Your task to perform on an android device: Open the phone app and click the voicemail tab. Image 0: 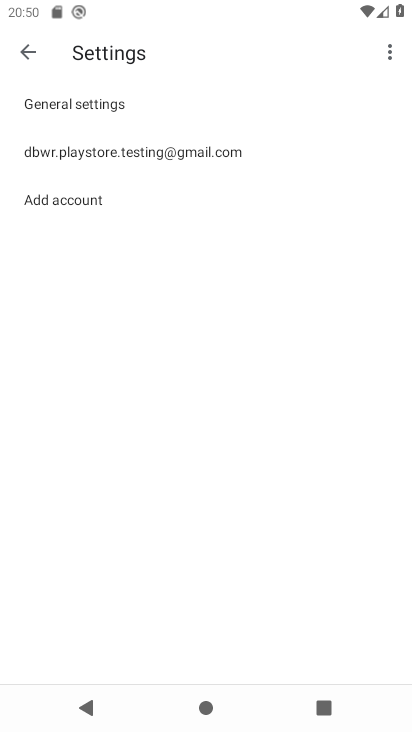
Step 0: press home button
Your task to perform on an android device: Open the phone app and click the voicemail tab. Image 1: 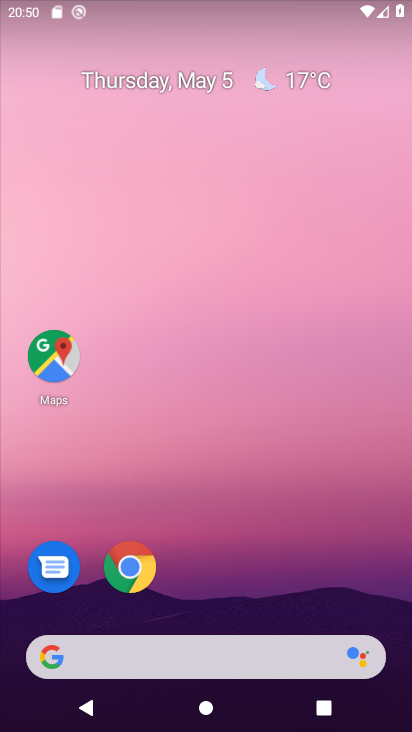
Step 1: drag from (274, 529) to (236, 40)
Your task to perform on an android device: Open the phone app and click the voicemail tab. Image 2: 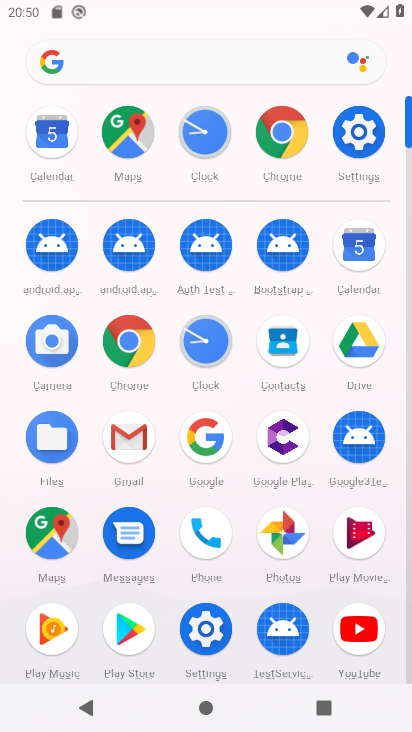
Step 2: click (203, 529)
Your task to perform on an android device: Open the phone app and click the voicemail tab. Image 3: 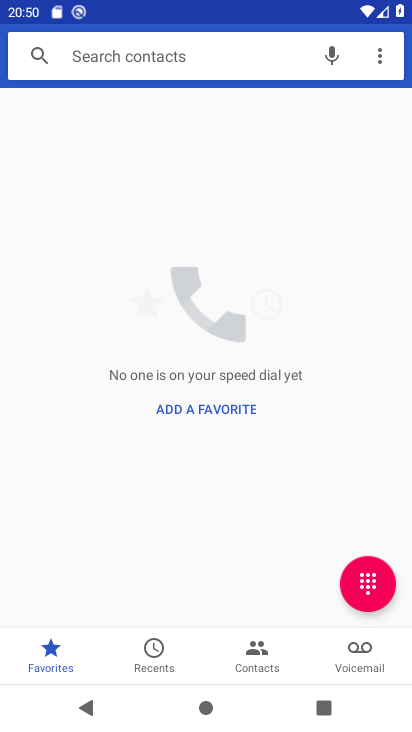
Step 3: click (360, 656)
Your task to perform on an android device: Open the phone app and click the voicemail tab. Image 4: 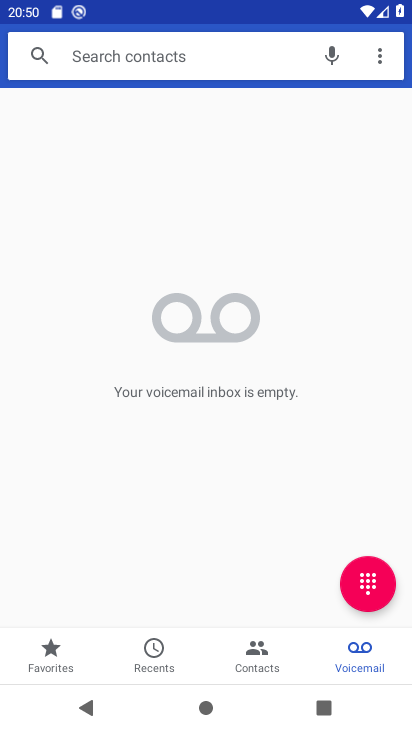
Step 4: task complete